Your task to perform on an android device: open chrome and create a bookmark for the current page Image 0: 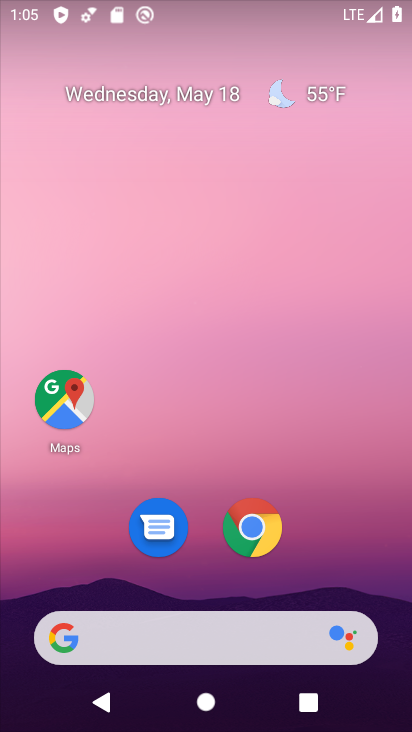
Step 0: click (262, 532)
Your task to perform on an android device: open chrome and create a bookmark for the current page Image 1: 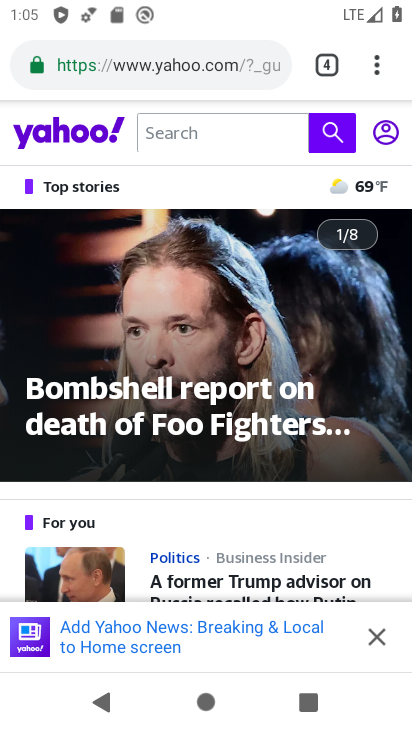
Step 1: click (368, 65)
Your task to perform on an android device: open chrome and create a bookmark for the current page Image 2: 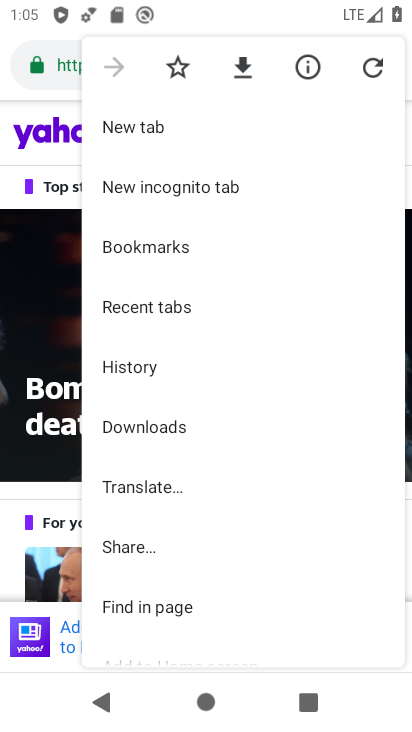
Step 2: click (179, 67)
Your task to perform on an android device: open chrome and create a bookmark for the current page Image 3: 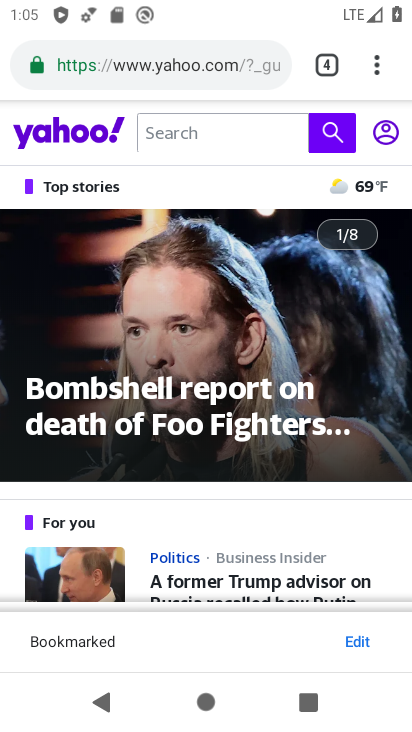
Step 3: task complete